Your task to perform on an android device: Open wifi settings Image 0: 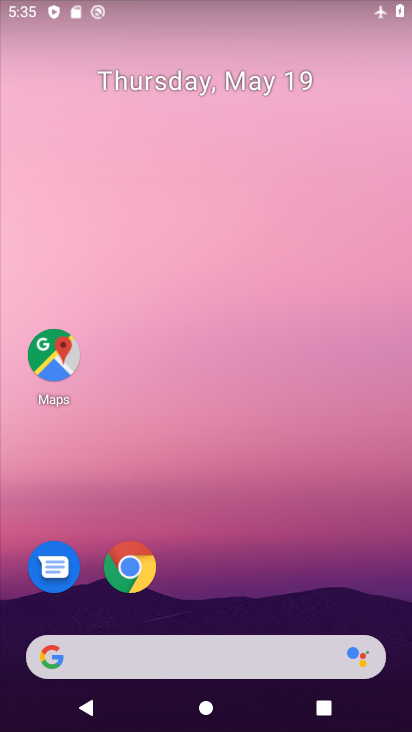
Step 0: drag from (231, 640) to (133, 57)
Your task to perform on an android device: Open wifi settings Image 1: 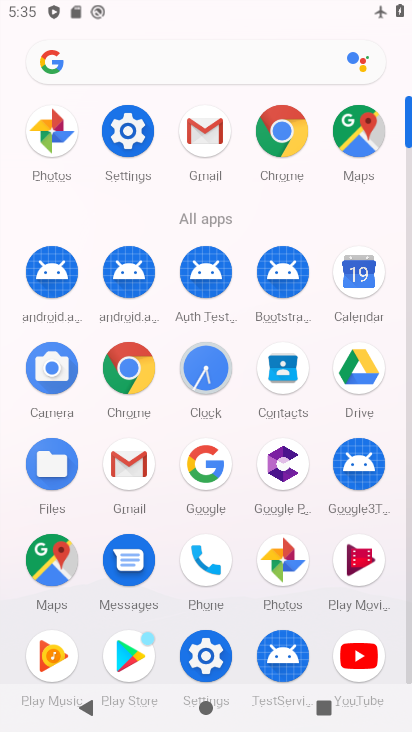
Step 1: click (210, 657)
Your task to perform on an android device: Open wifi settings Image 2: 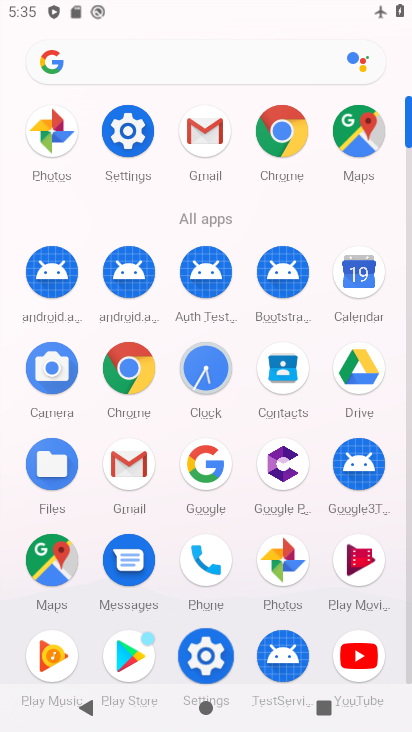
Step 2: click (210, 657)
Your task to perform on an android device: Open wifi settings Image 3: 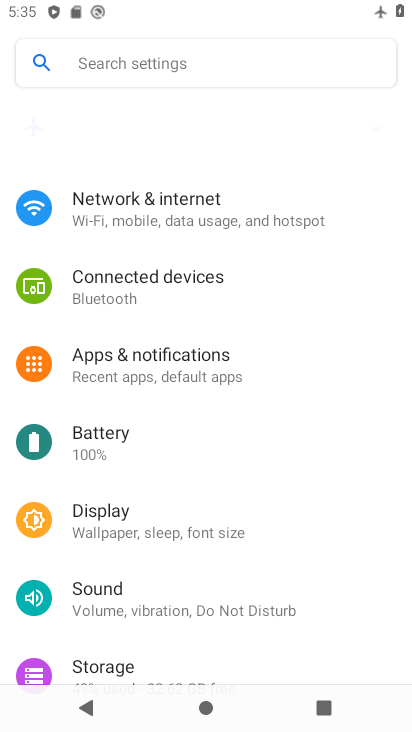
Step 3: click (210, 657)
Your task to perform on an android device: Open wifi settings Image 4: 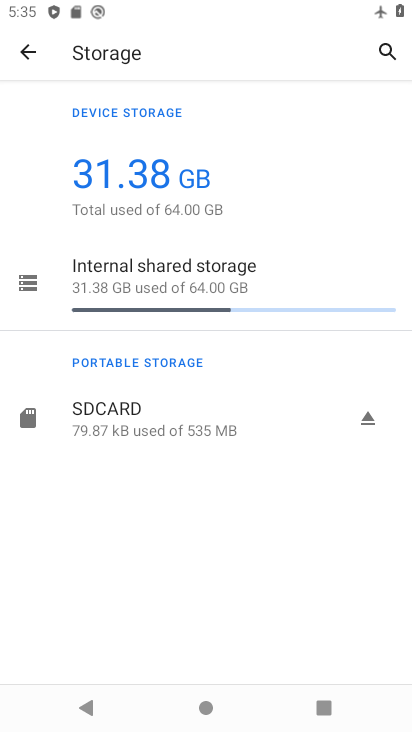
Step 4: click (20, 41)
Your task to perform on an android device: Open wifi settings Image 5: 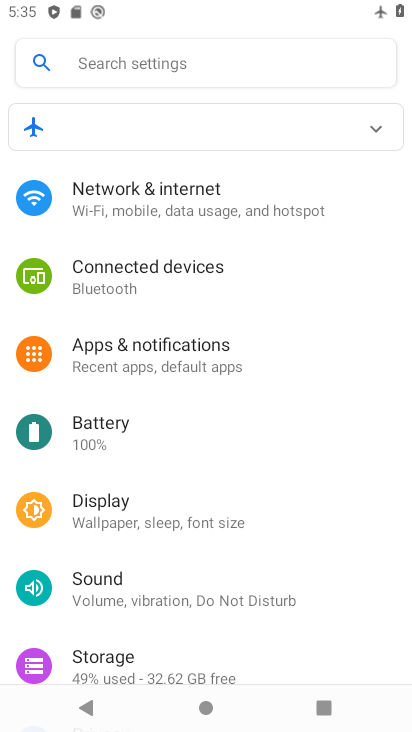
Step 5: click (160, 205)
Your task to perform on an android device: Open wifi settings Image 6: 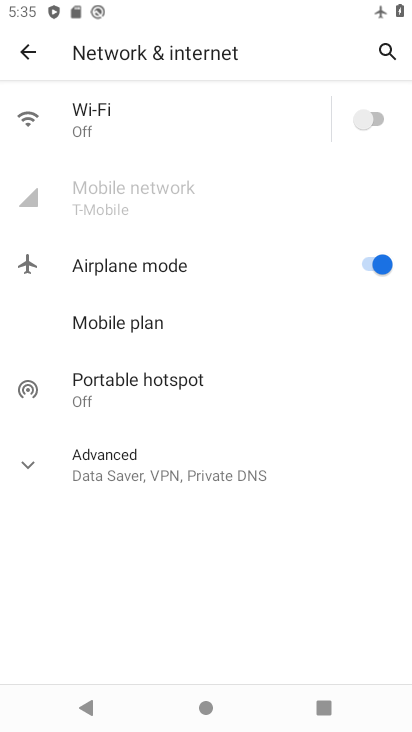
Step 6: click (366, 114)
Your task to perform on an android device: Open wifi settings Image 7: 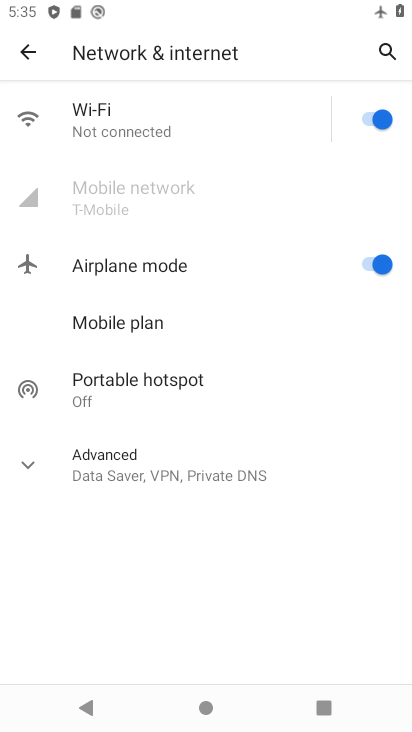
Step 7: task complete